Your task to perform on an android device: turn off location Image 0: 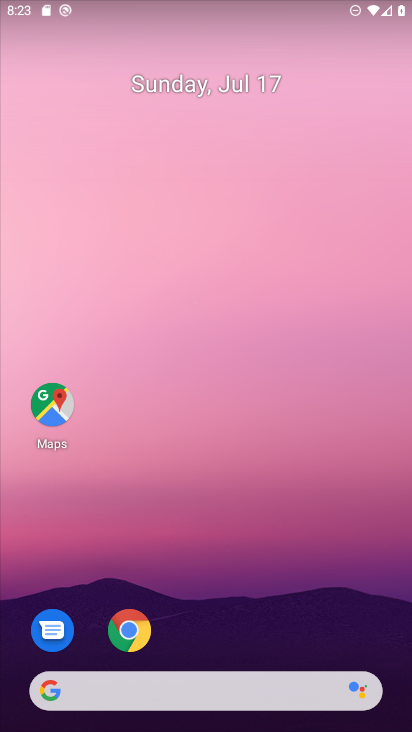
Step 0: drag from (381, 644) to (222, 4)
Your task to perform on an android device: turn off location Image 1: 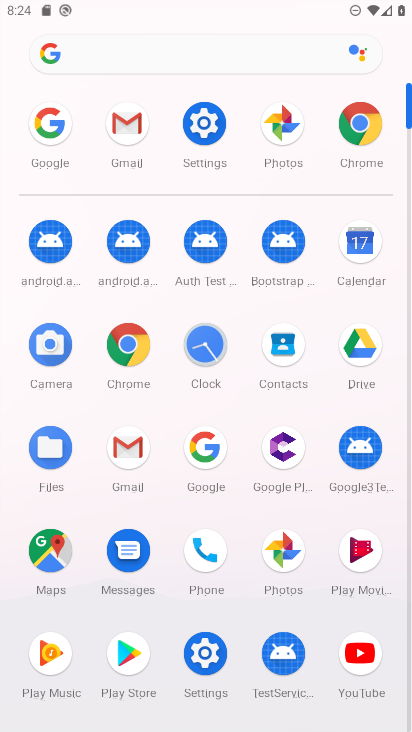
Step 1: click (204, 127)
Your task to perform on an android device: turn off location Image 2: 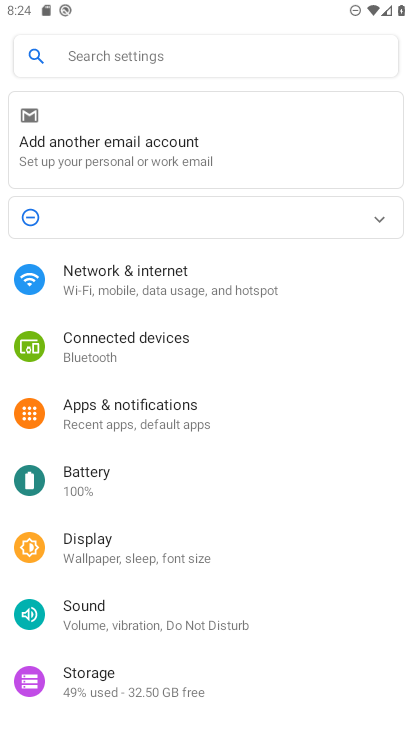
Step 2: drag from (126, 672) to (103, 303)
Your task to perform on an android device: turn off location Image 3: 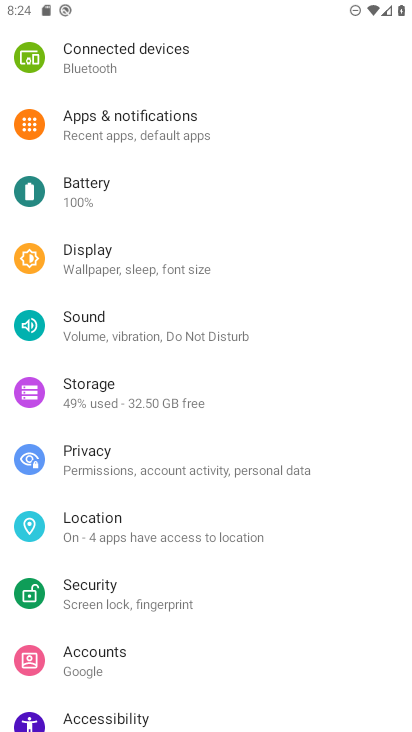
Step 3: click (118, 528)
Your task to perform on an android device: turn off location Image 4: 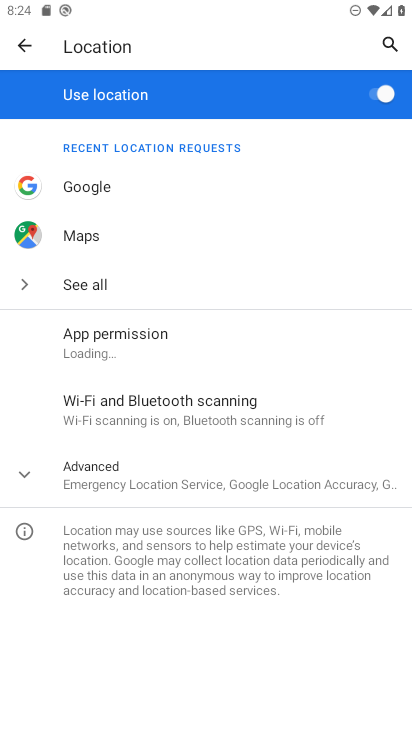
Step 4: click (369, 90)
Your task to perform on an android device: turn off location Image 5: 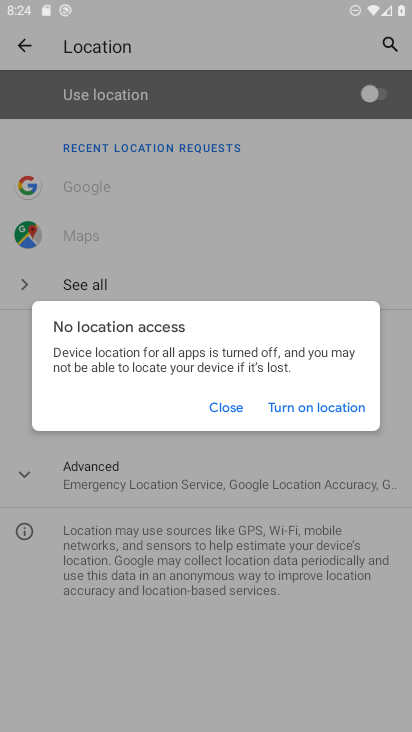
Step 5: task complete